Your task to perform on an android device: turn smart compose on in the gmail app Image 0: 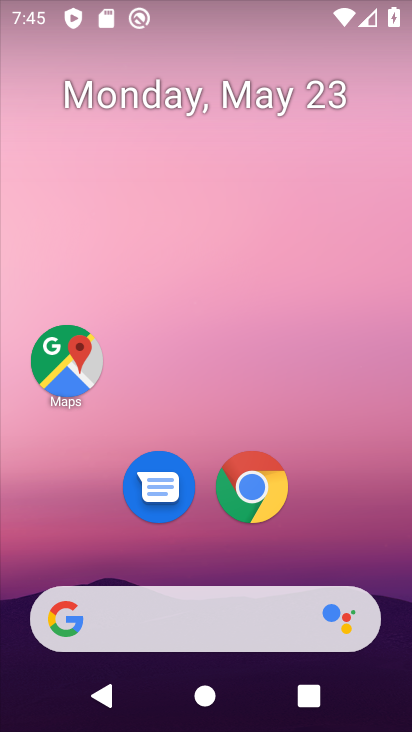
Step 0: drag from (327, 456) to (3, 81)
Your task to perform on an android device: turn smart compose on in the gmail app Image 1: 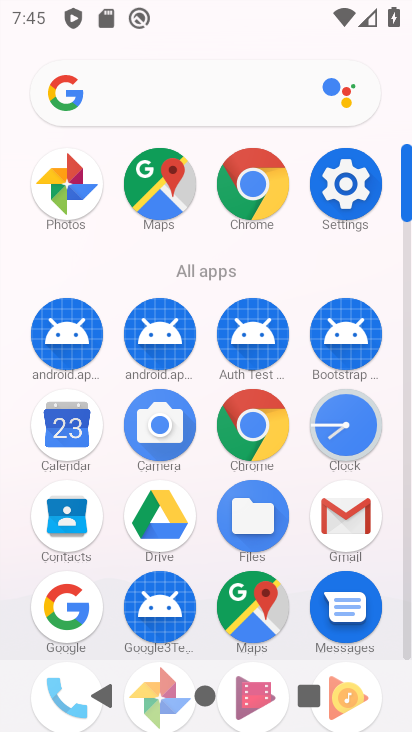
Step 1: drag from (34, 547) to (32, 247)
Your task to perform on an android device: turn smart compose on in the gmail app Image 2: 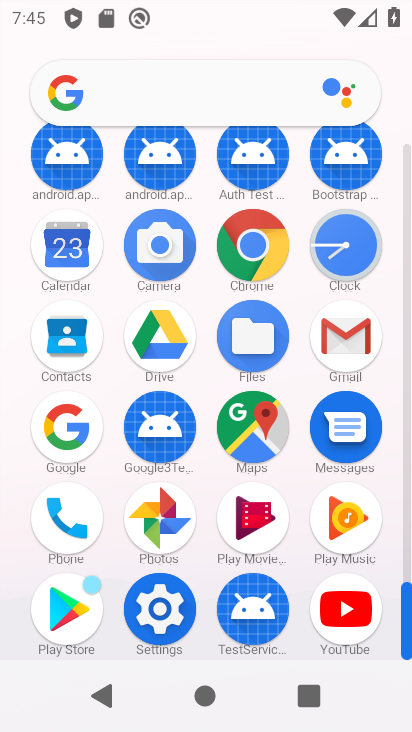
Step 2: click (350, 324)
Your task to perform on an android device: turn smart compose on in the gmail app Image 3: 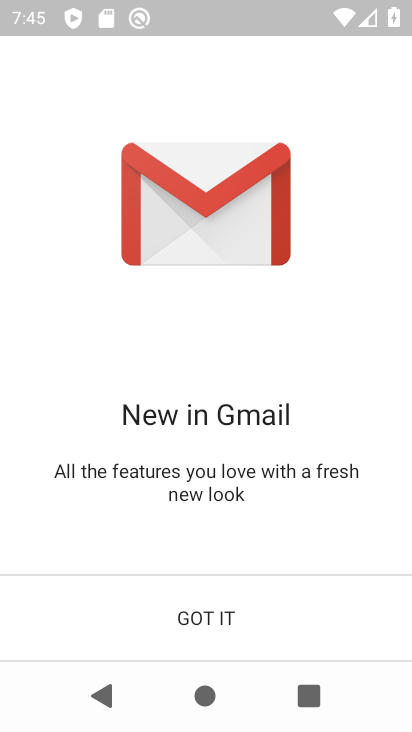
Step 3: click (237, 583)
Your task to perform on an android device: turn smart compose on in the gmail app Image 4: 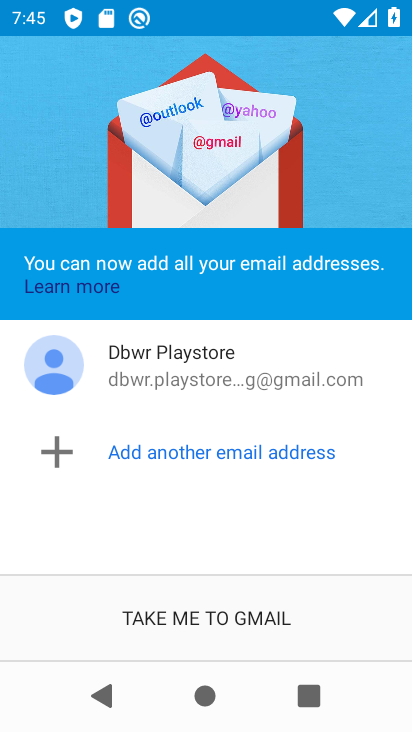
Step 4: click (236, 596)
Your task to perform on an android device: turn smart compose on in the gmail app Image 5: 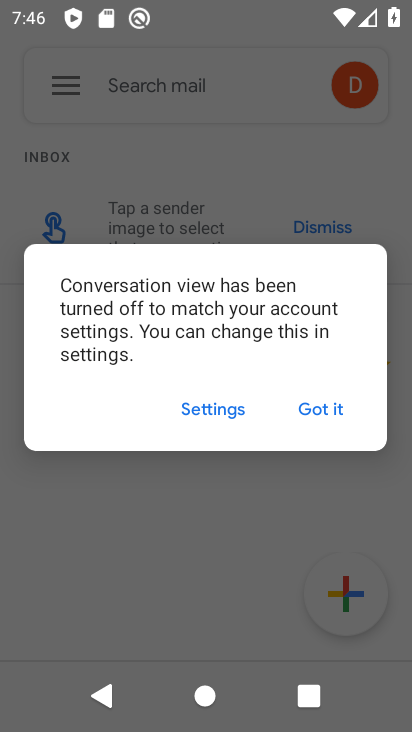
Step 5: click (341, 416)
Your task to perform on an android device: turn smart compose on in the gmail app Image 6: 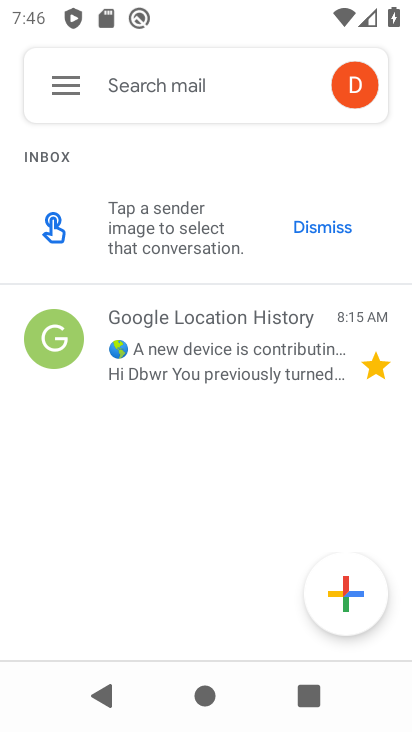
Step 6: click (65, 70)
Your task to perform on an android device: turn smart compose on in the gmail app Image 7: 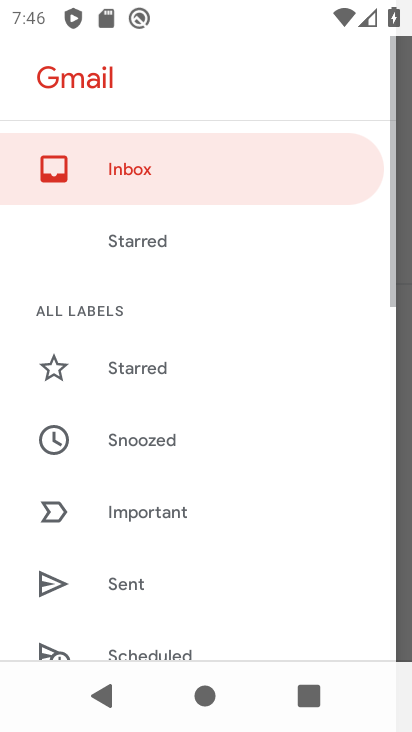
Step 7: drag from (141, 561) to (146, 195)
Your task to perform on an android device: turn smart compose on in the gmail app Image 8: 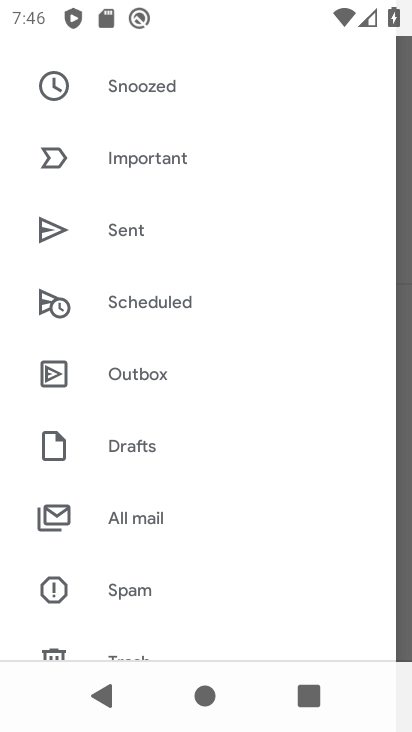
Step 8: drag from (144, 633) to (198, 183)
Your task to perform on an android device: turn smart compose on in the gmail app Image 9: 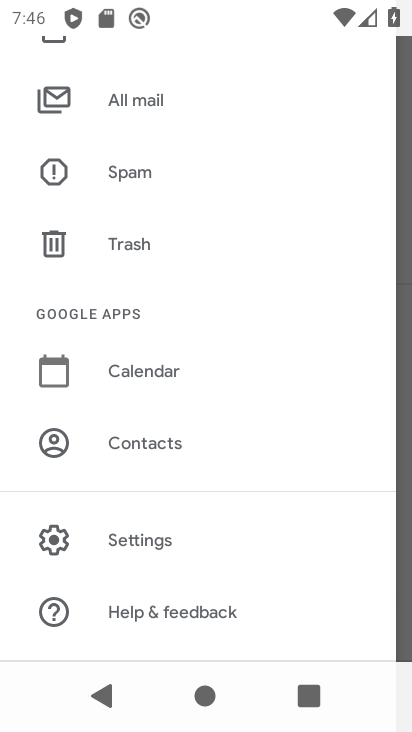
Step 9: click (146, 534)
Your task to perform on an android device: turn smart compose on in the gmail app Image 10: 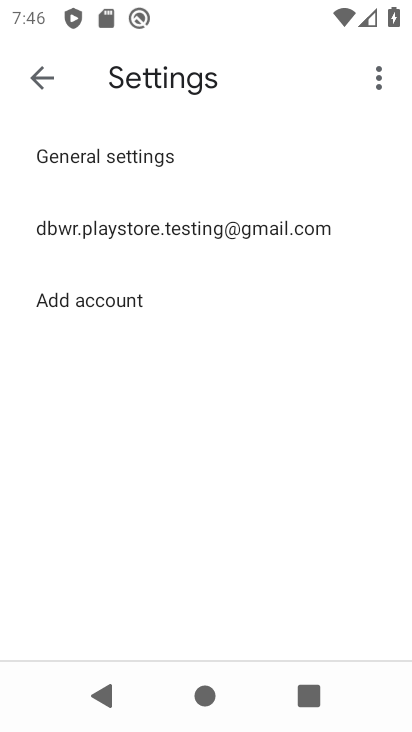
Step 10: click (167, 222)
Your task to perform on an android device: turn smart compose on in the gmail app Image 11: 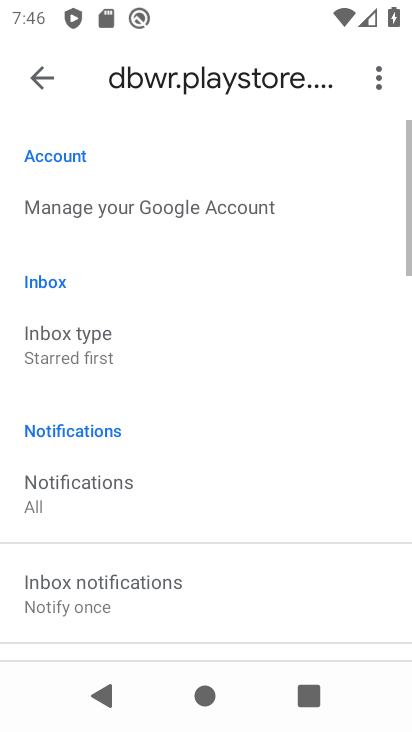
Step 11: task complete